Your task to perform on an android device: Open Amazon Image 0: 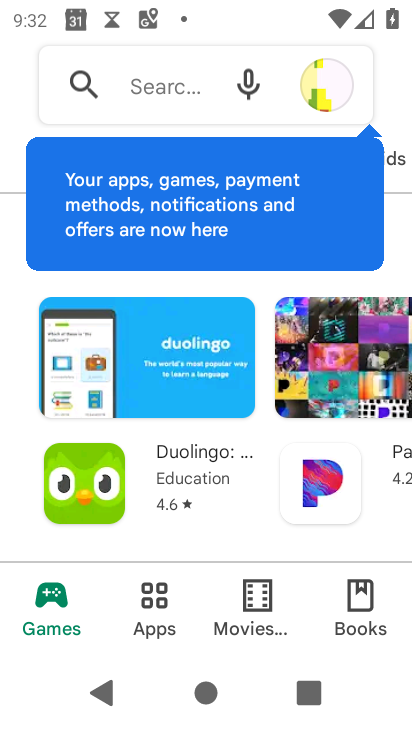
Step 0: press home button
Your task to perform on an android device: Open Amazon Image 1: 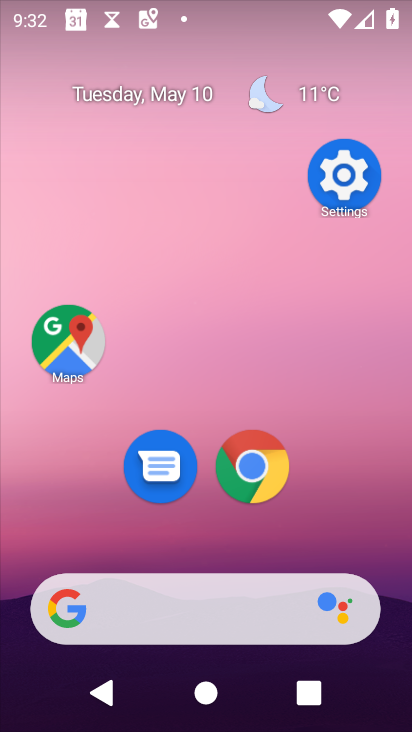
Step 1: click (262, 468)
Your task to perform on an android device: Open Amazon Image 2: 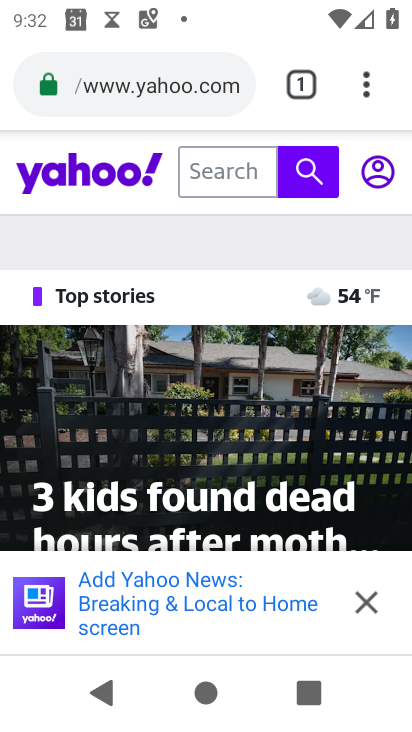
Step 2: click (228, 86)
Your task to perform on an android device: Open Amazon Image 3: 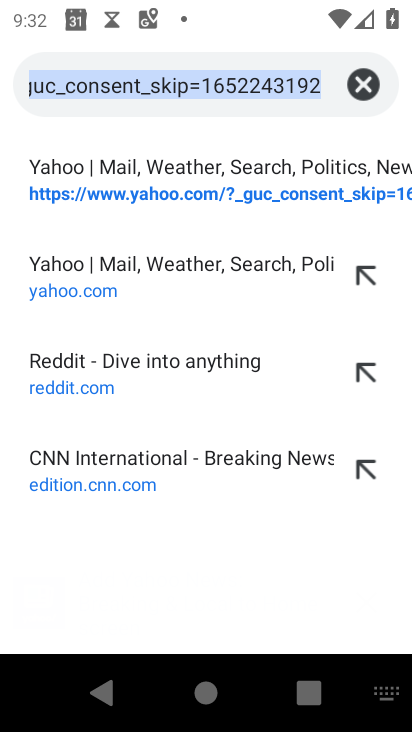
Step 3: type "amazon"
Your task to perform on an android device: Open Amazon Image 4: 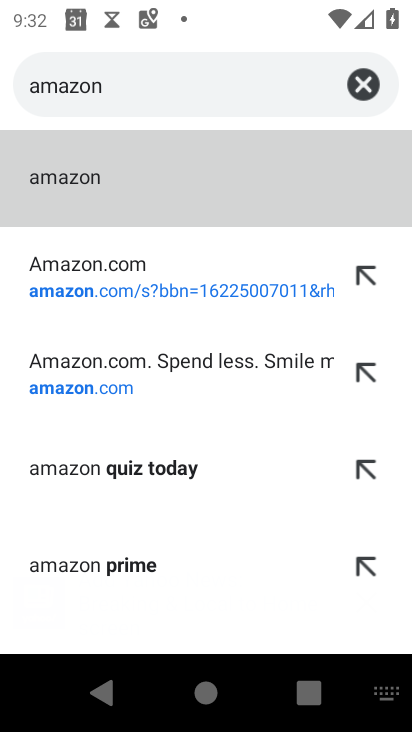
Step 4: click (80, 186)
Your task to perform on an android device: Open Amazon Image 5: 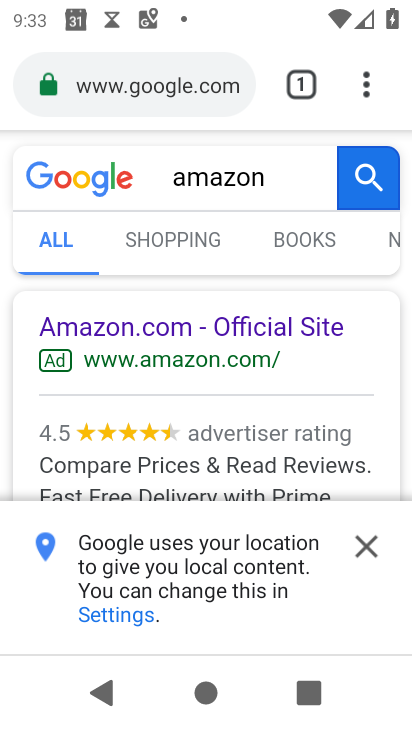
Step 5: click (239, 321)
Your task to perform on an android device: Open Amazon Image 6: 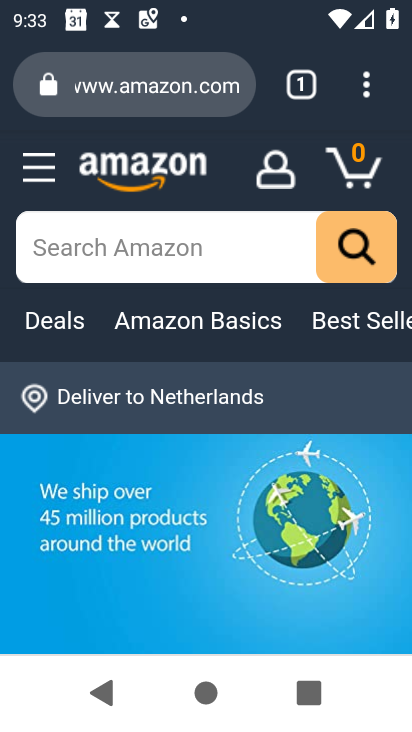
Step 6: task complete